Your task to perform on an android device: Open Chrome and go to settings Image 0: 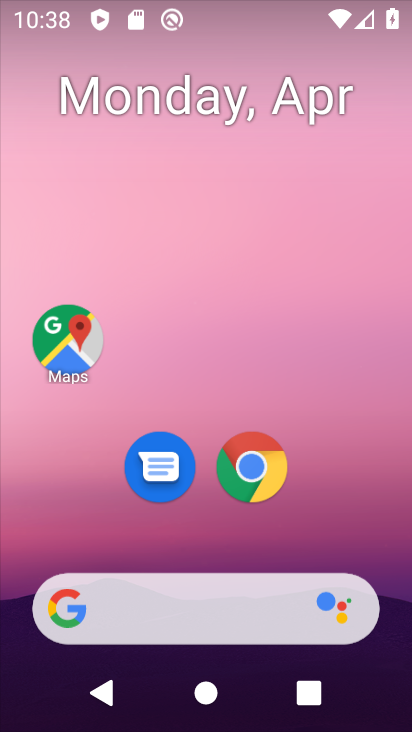
Step 0: click (247, 480)
Your task to perform on an android device: Open Chrome and go to settings Image 1: 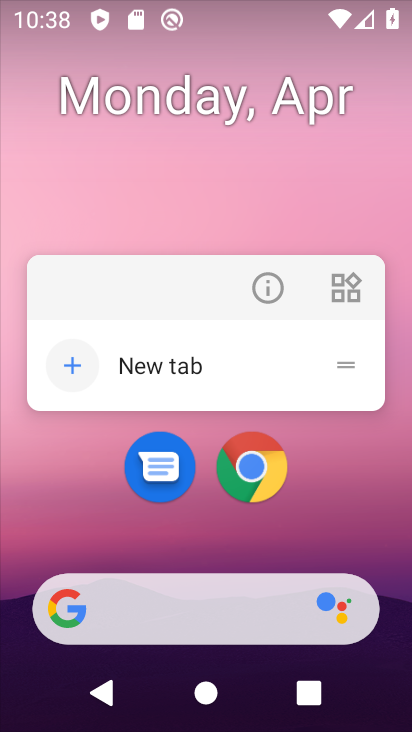
Step 1: click (260, 484)
Your task to perform on an android device: Open Chrome and go to settings Image 2: 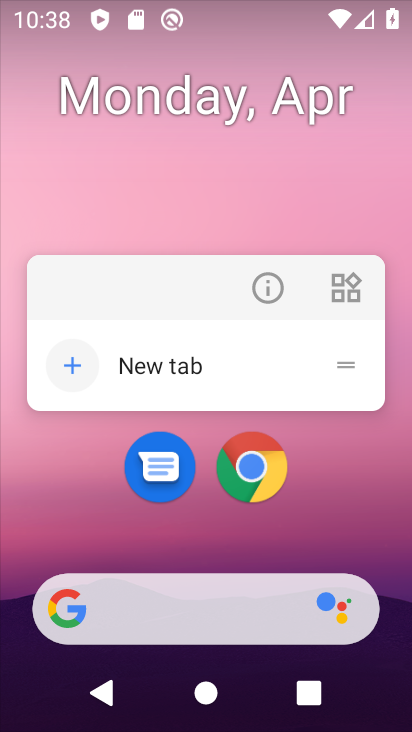
Step 2: click (257, 465)
Your task to perform on an android device: Open Chrome and go to settings Image 3: 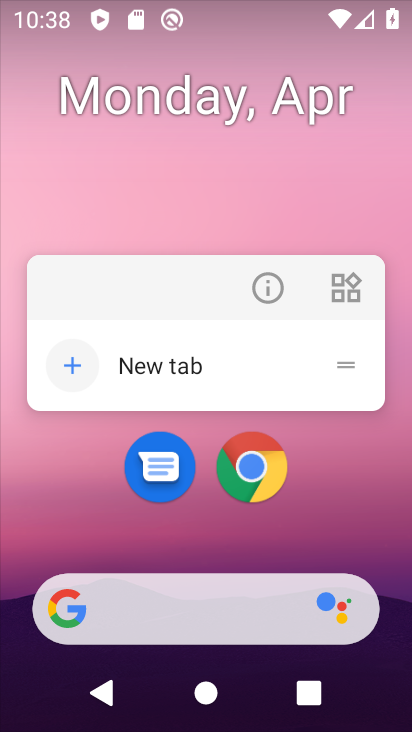
Step 3: click (246, 468)
Your task to perform on an android device: Open Chrome and go to settings Image 4: 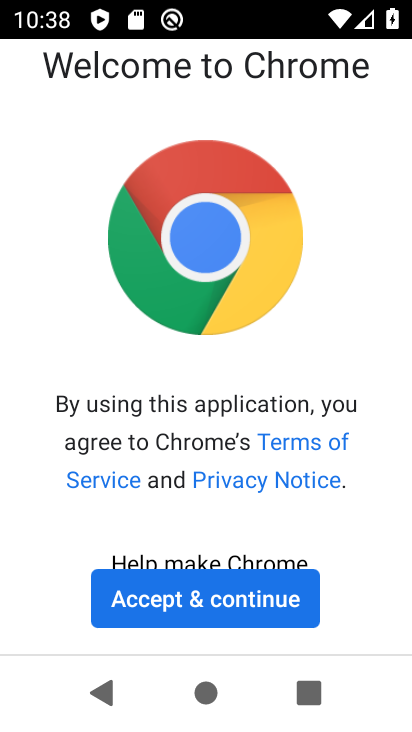
Step 4: click (250, 596)
Your task to perform on an android device: Open Chrome and go to settings Image 5: 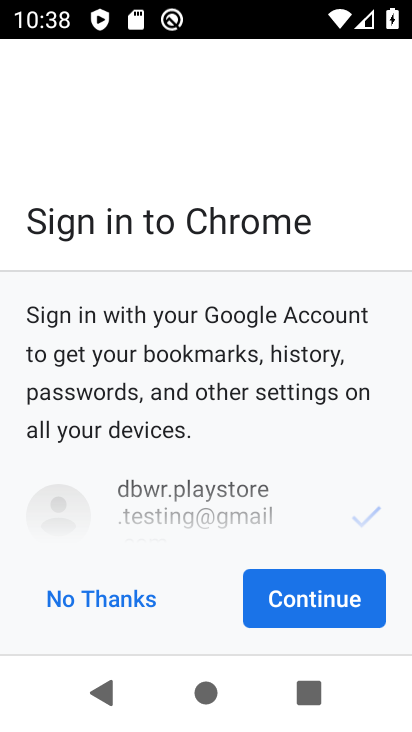
Step 5: click (315, 593)
Your task to perform on an android device: Open Chrome and go to settings Image 6: 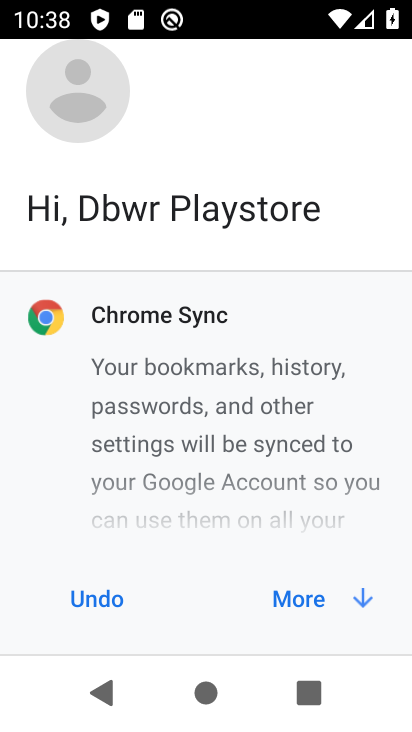
Step 6: click (315, 593)
Your task to perform on an android device: Open Chrome and go to settings Image 7: 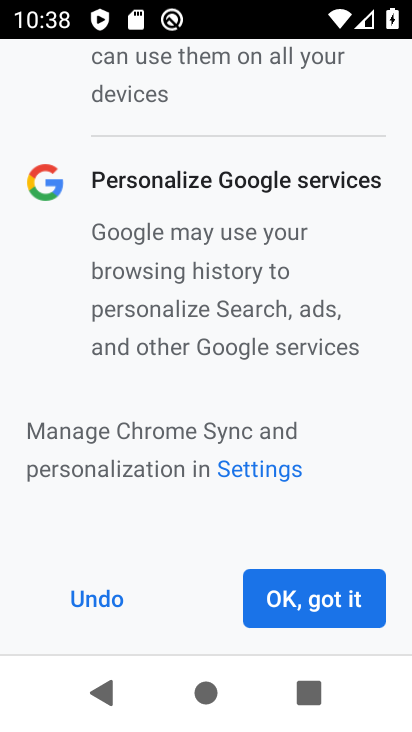
Step 7: click (317, 588)
Your task to perform on an android device: Open Chrome and go to settings Image 8: 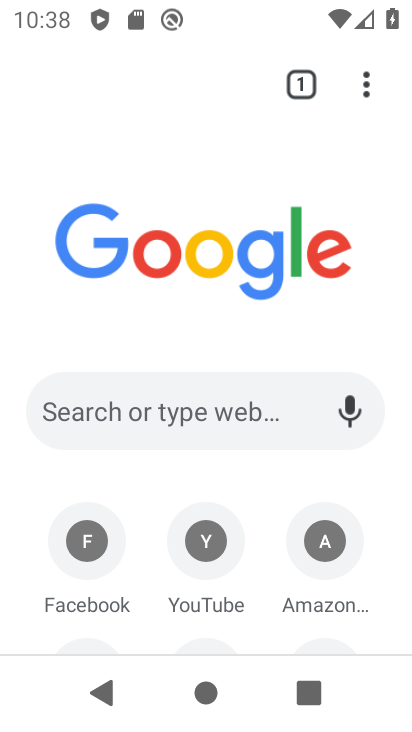
Step 8: click (362, 80)
Your task to perform on an android device: Open Chrome and go to settings Image 9: 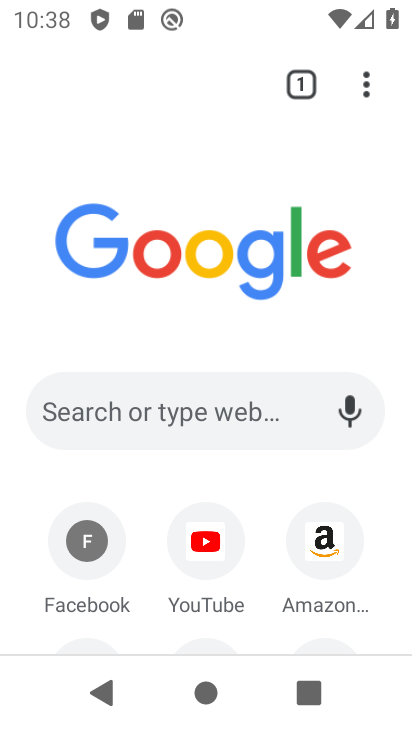
Step 9: click (357, 79)
Your task to perform on an android device: Open Chrome and go to settings Image 10: 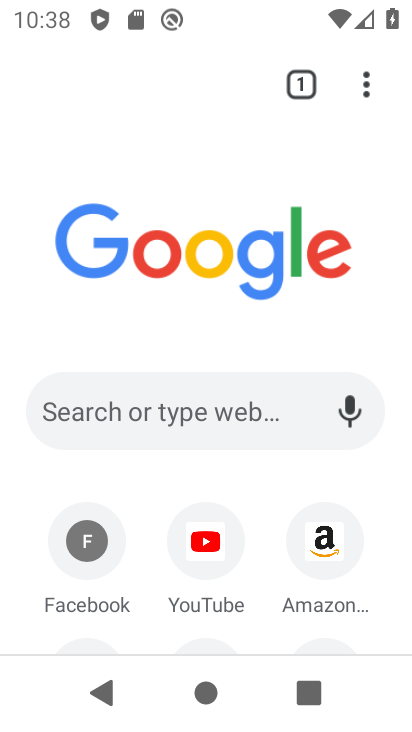
Step 10: click (362, 79)
Your task to perform on an android device: Open Chrome and go to settings Image 11: 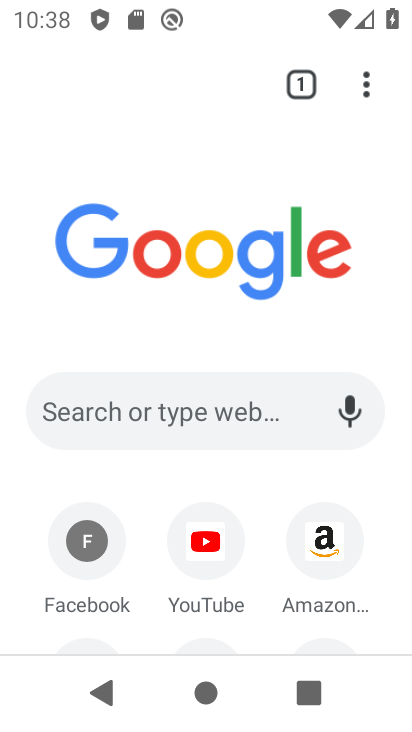
Step 11: task complete